Your task to perform on an android device: set the timer Image 0: 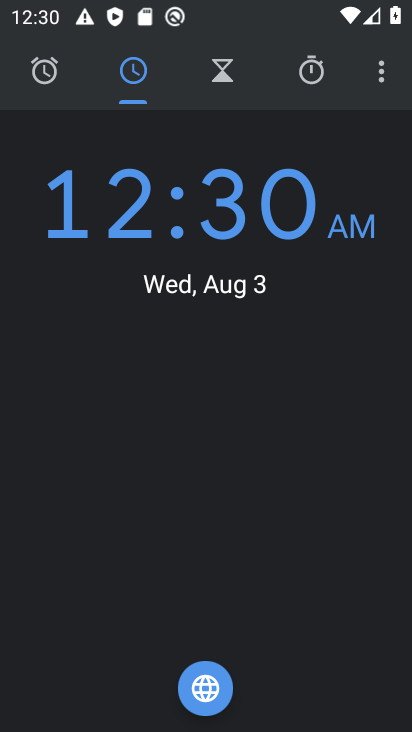
Step 0: press home button
Your task to perform on an android device: set the timer Image 1: 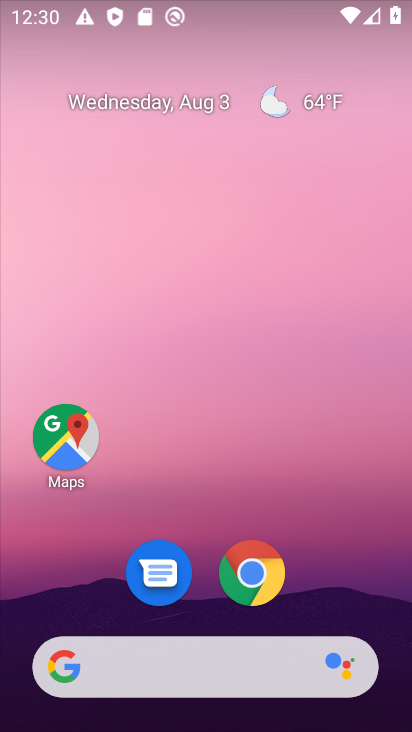
Step 1: drag from (226, 676) to (324, 120)
Your task to perform on an android device: set the timer Image 2: 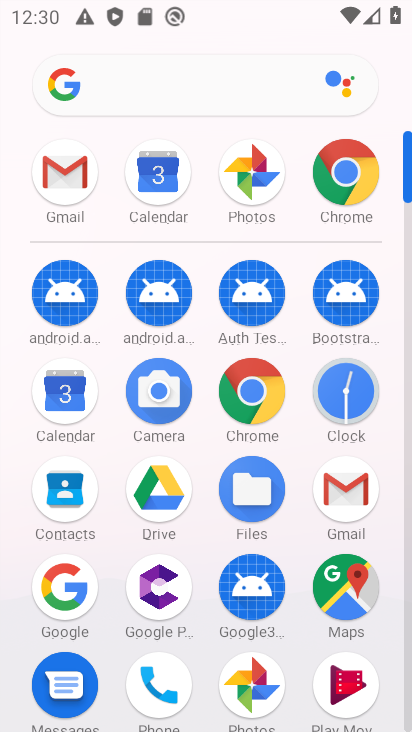
Step 2: drag from (205, 511) to (263, 139)
Your task to perform on an android device: set the timer Image 3: 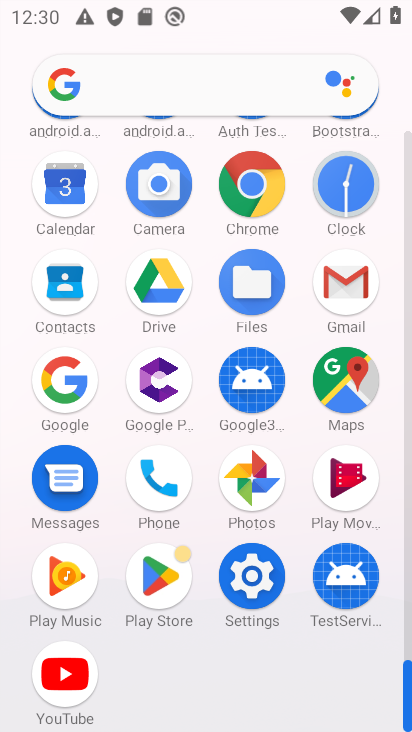
Step 3: click (354, 227)
Your task to perform on an android device: set the timer Image 4: 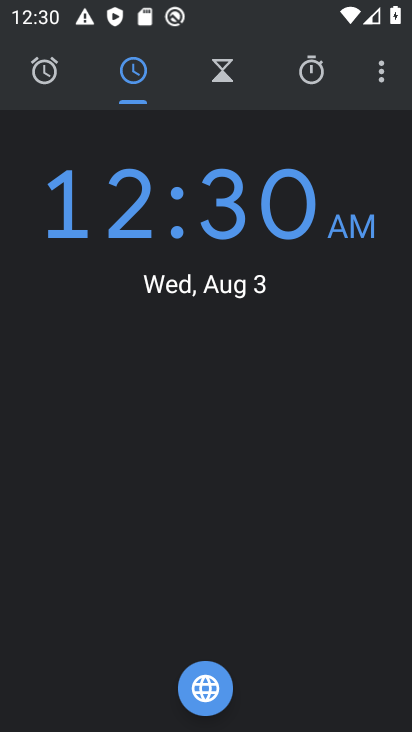
Step 4: click (236, 82)
Your task to perform on an android device: set the timer Image 5: 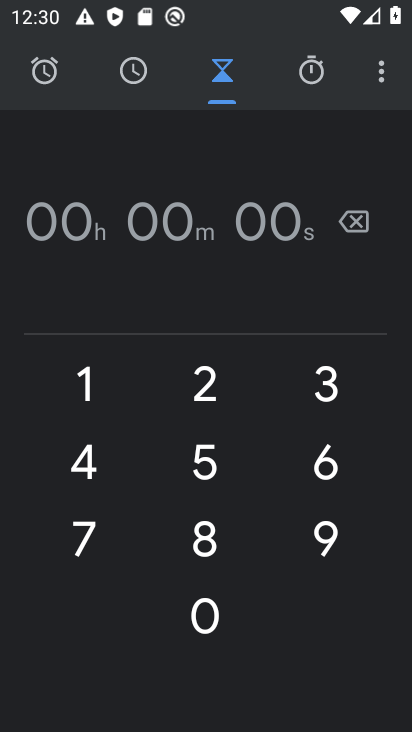
Step 5: click (227, 370)
Your task to perform on an android device: set the timer Image 6: 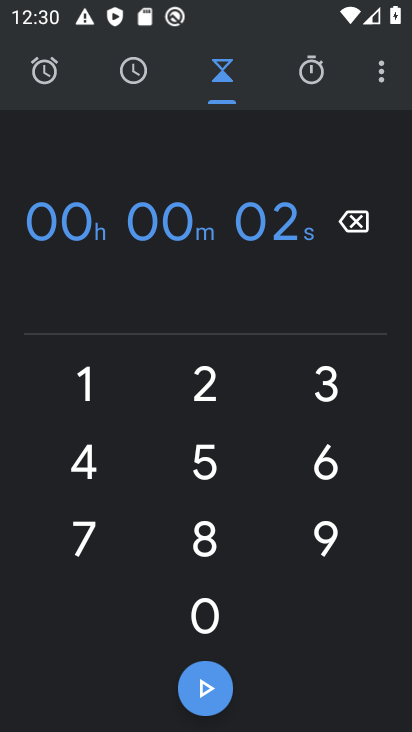
Step 6: click (216, 689)
Your task to perform on an android device: set the timer Image 7: 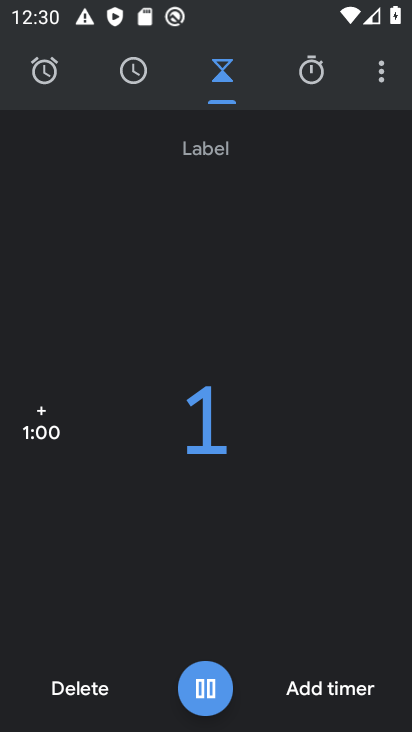
Step 7: task complete